Your task to perform on an android device: change notifications settings Image 0: 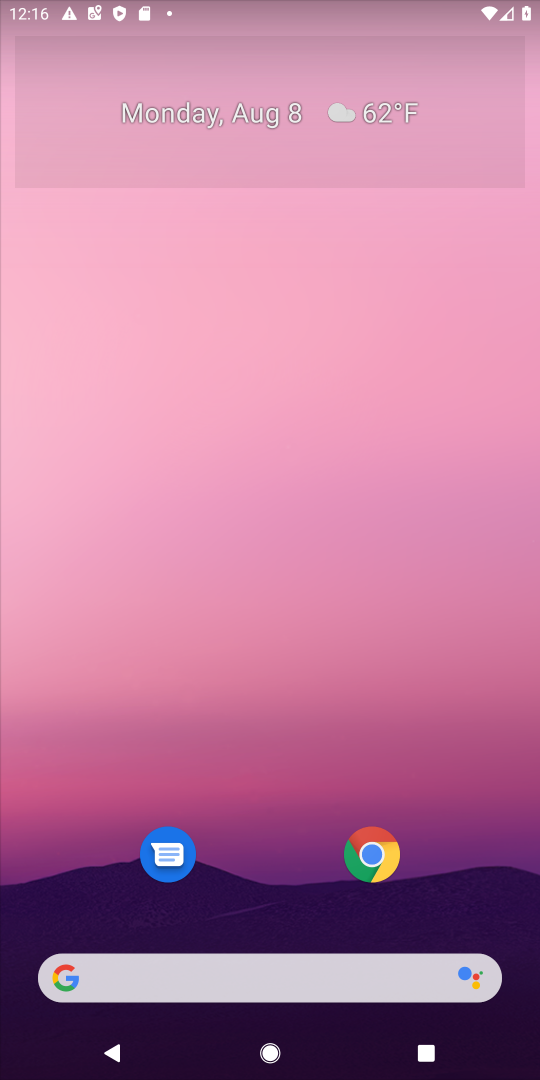
Step 0: press home button
Your task to perform on an android device: change notifications settings Image 1: 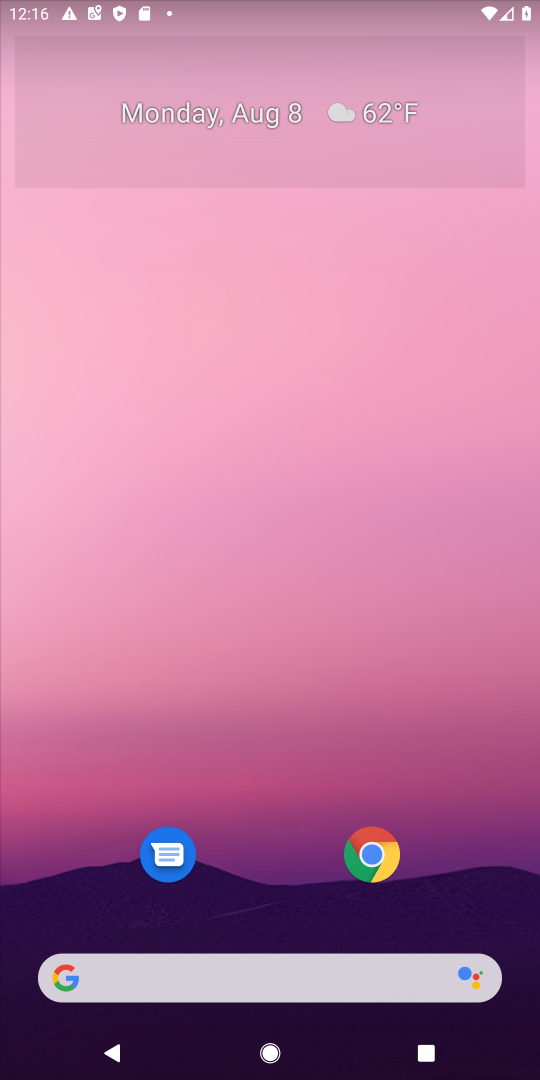
Step 1: drag from (281, 886) to (507, 40)
Your task to perform on an android device: change notifications settings Image 2: 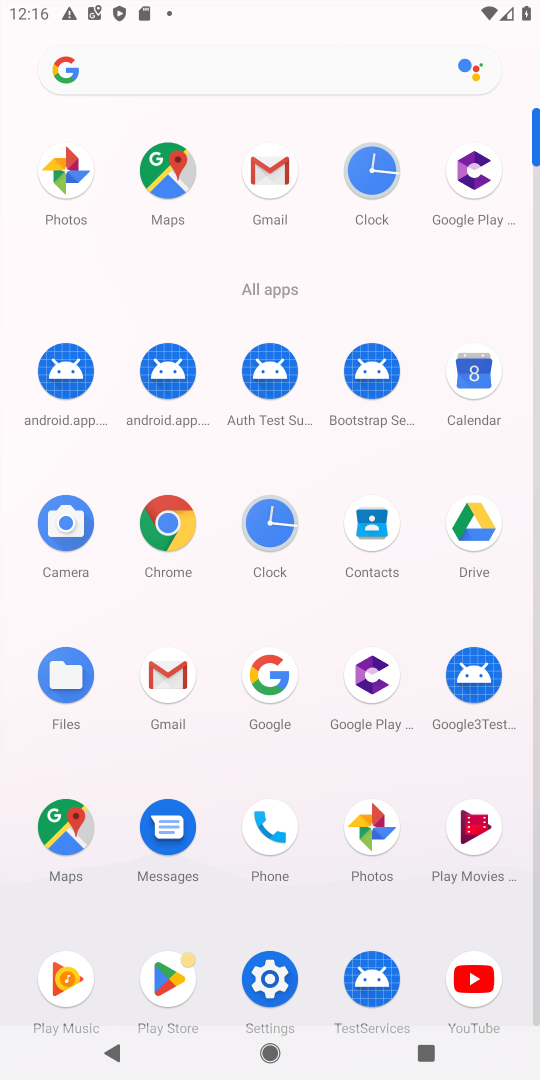
Step 2: click (269, 1014)
Your task to perform on an android device: change notifications settings Image 3: 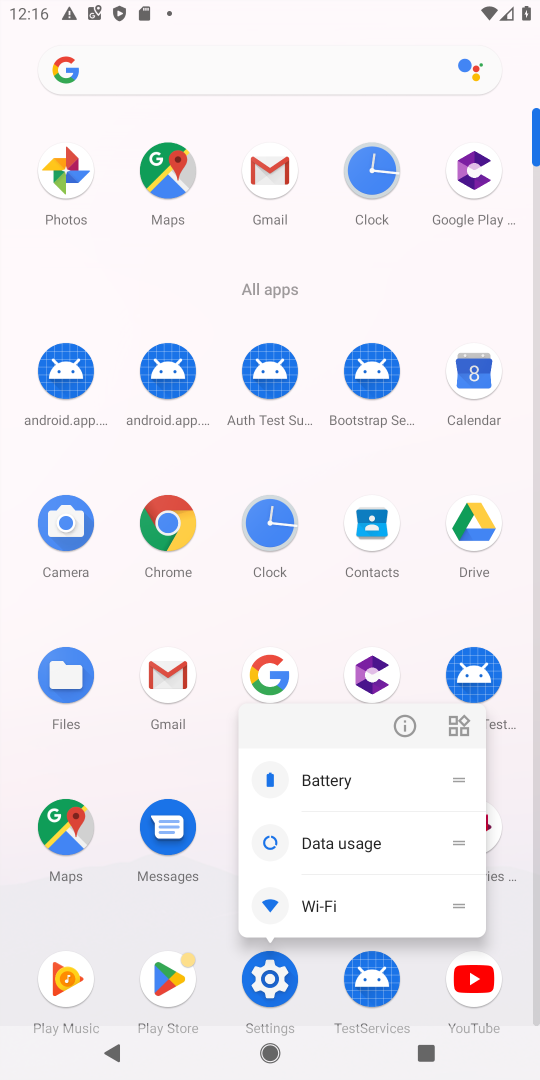
Step 3: click (269, 997)
Your task to perform on an android device: change notifications settings Image 4: 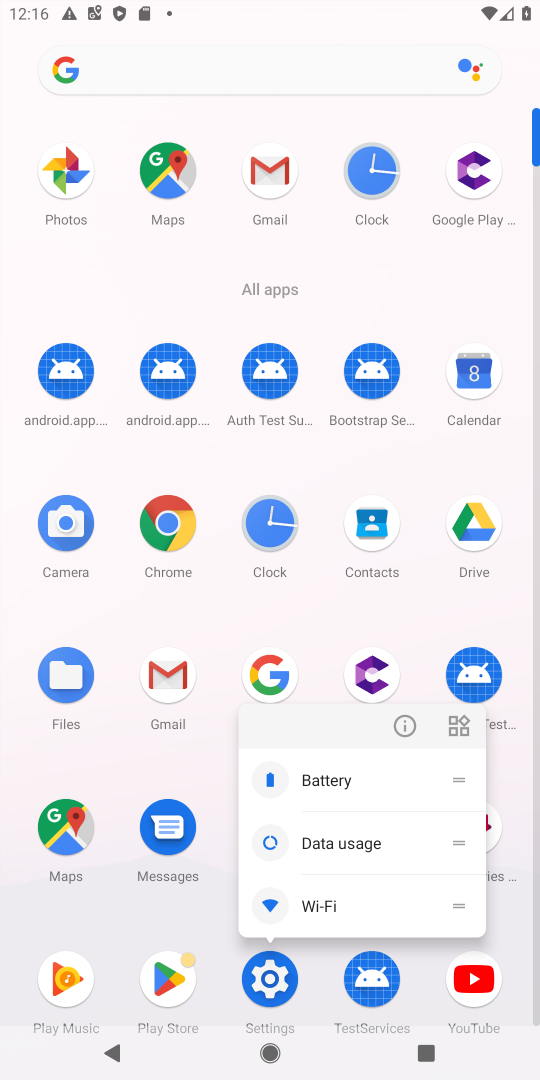
Step 4: click (269, 989)
Your task to perform on an android device: change notifications settings Image 5: 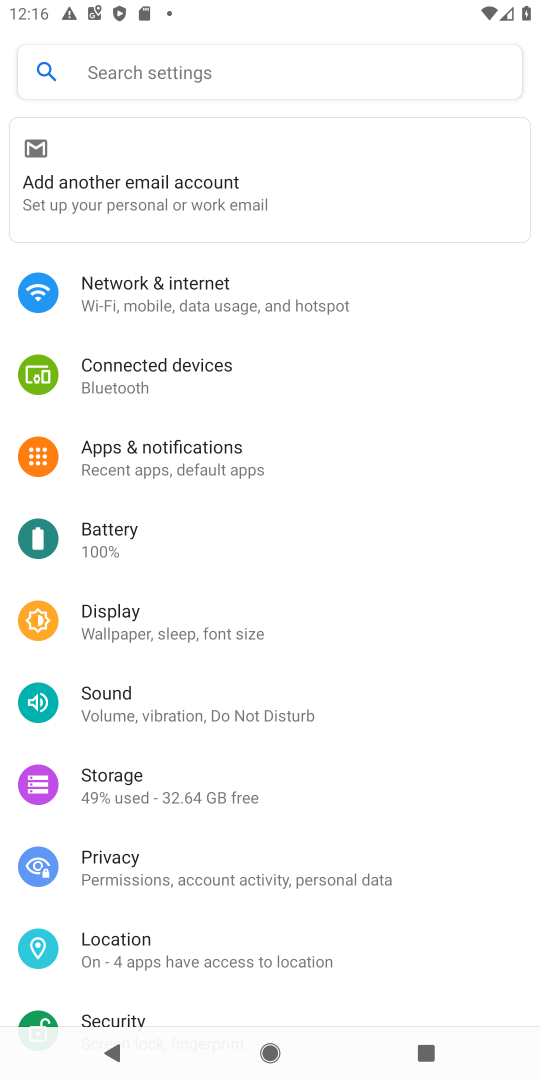
Step 5: click (133, 454)
Your task to perform on an android device: change notifications settings Image 6: 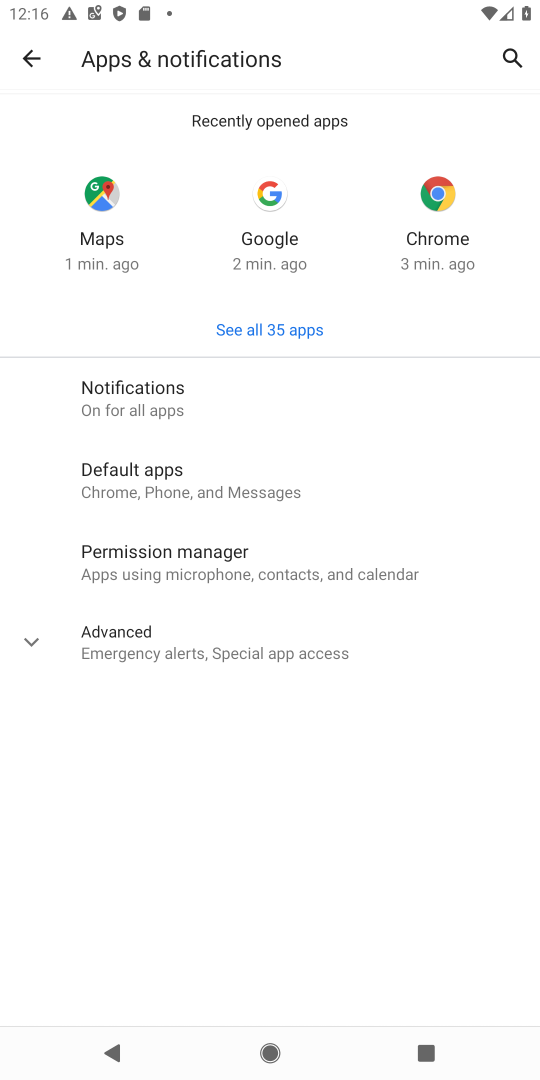
Step 6: click (140, 402)
Your task to perform on an android device: change notifications settings Image 7: 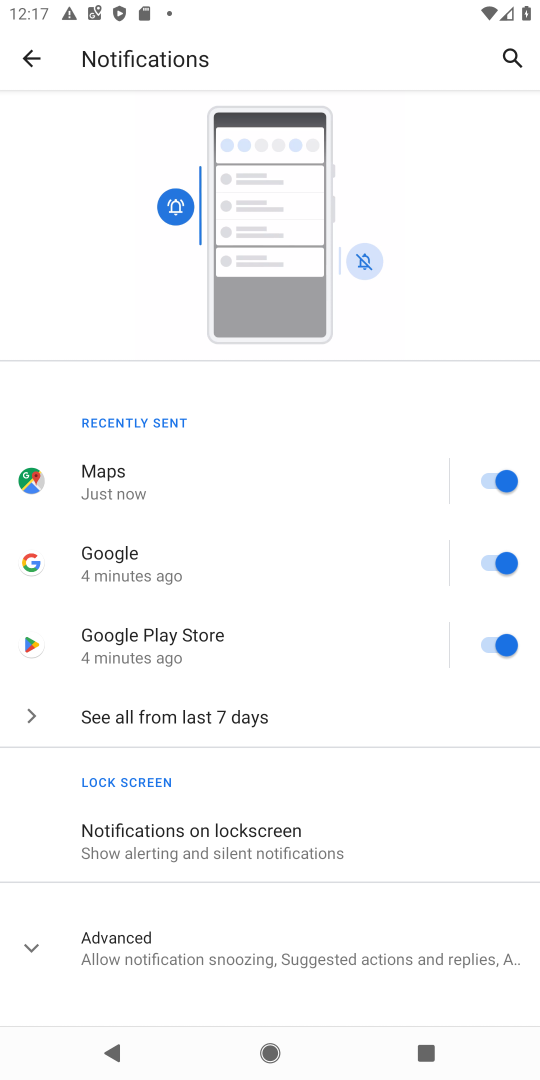
Step 7: click (180, 848)
Your task to perform on an android device: change notifications settings Image 8: 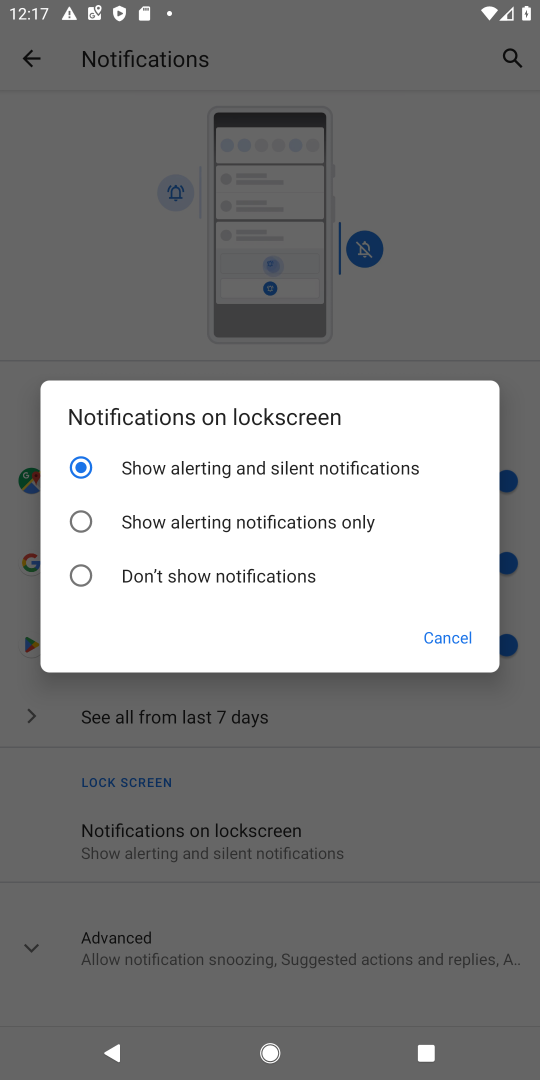
Step 8: click (84, 575)
Your task to perform on an android device: change notifications settings Image 9: 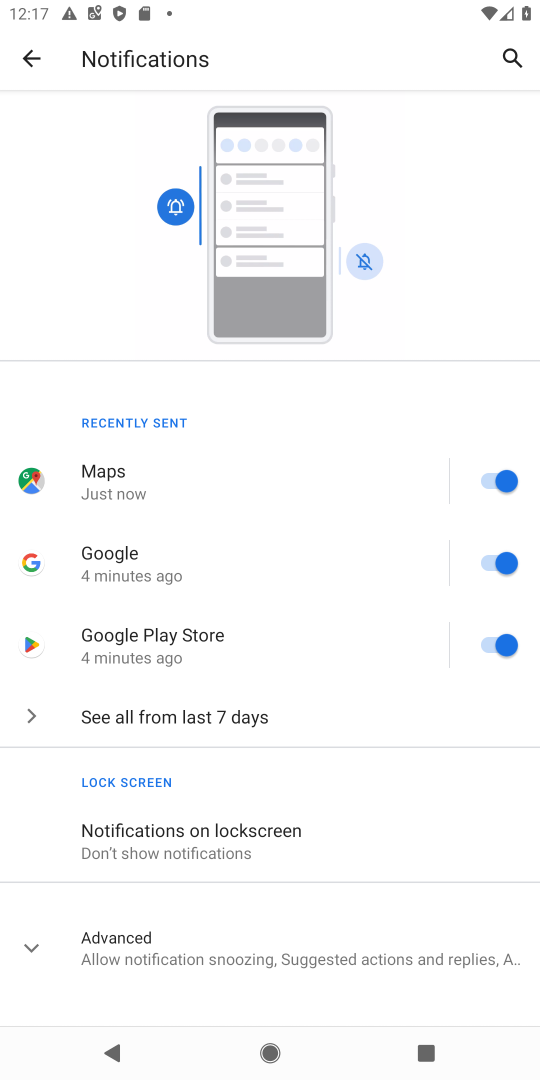
Step 9: task complete